Your task to perform on an android device: add a label to a message in the gmail app Image 0: 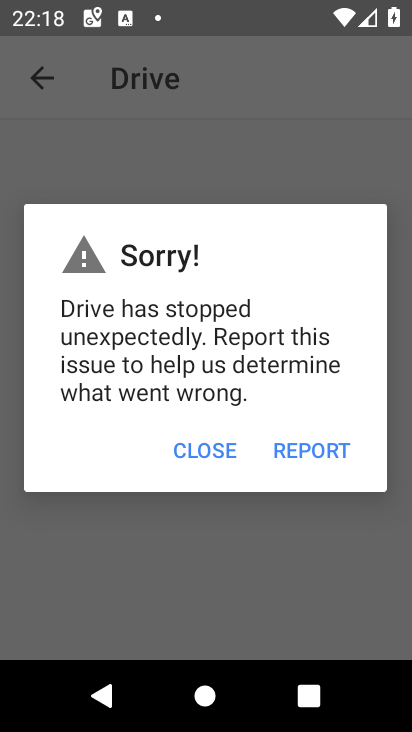
Step 0: press home button
Your task to perform on an android device: add a label to a message in the gmail app Image 1: 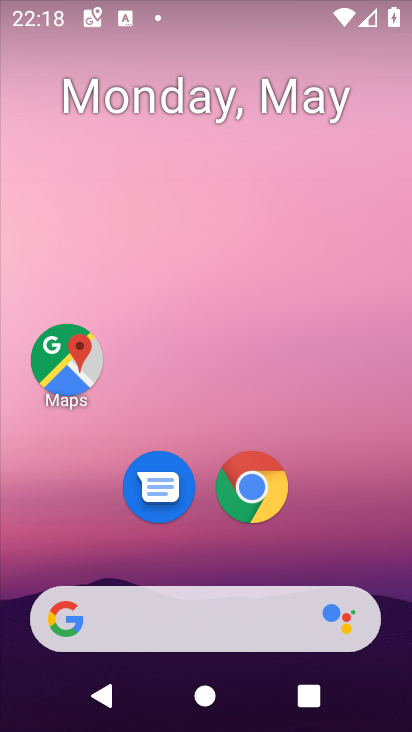
Step 1: drag from (204, 571) to (212, 59)
Your task to perform on an android device: add a label to a message in the gmail app Image 2: 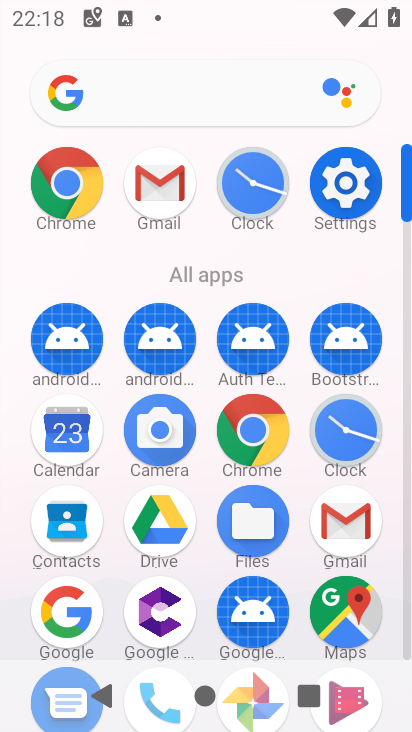
Step 2: click (158, 189)
Your task to perform on an android device: add a label to a message in the gmail app Image 3: 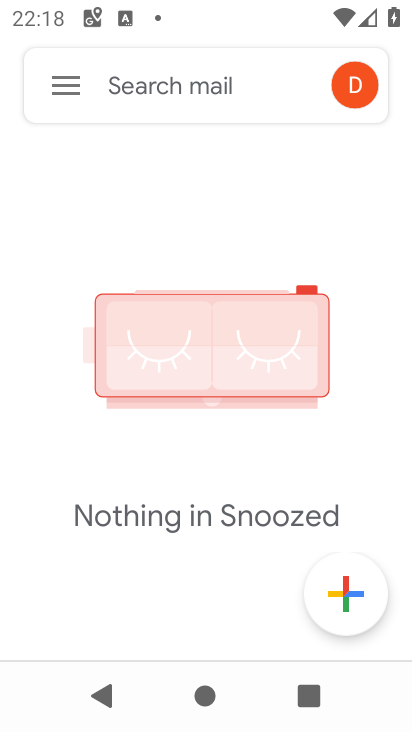
Step 3: click (75, 76)
Your task to perform on an android device: add a label to a message in the gmail app Image 4: 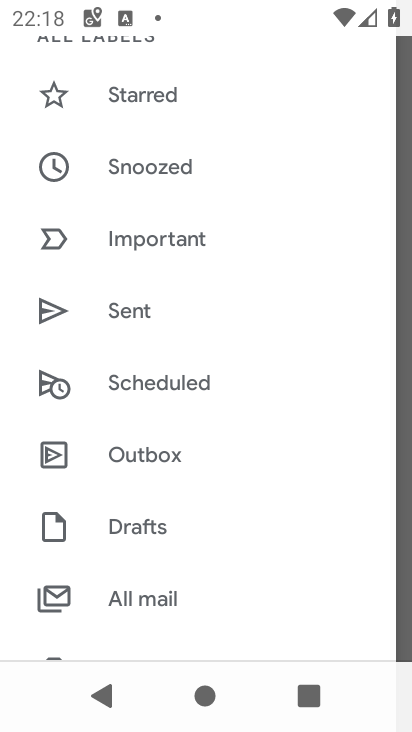
Step 4: click (165, 575)
Your task to perform on an android device: add a label to a message in the gmail app Image 5: 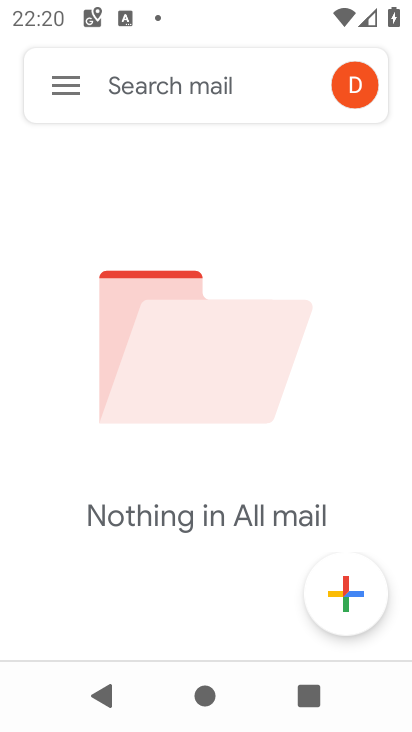
Step 5: task complete